Your task to perform on an android device: turn on the 12-hour format for clock Image 0: 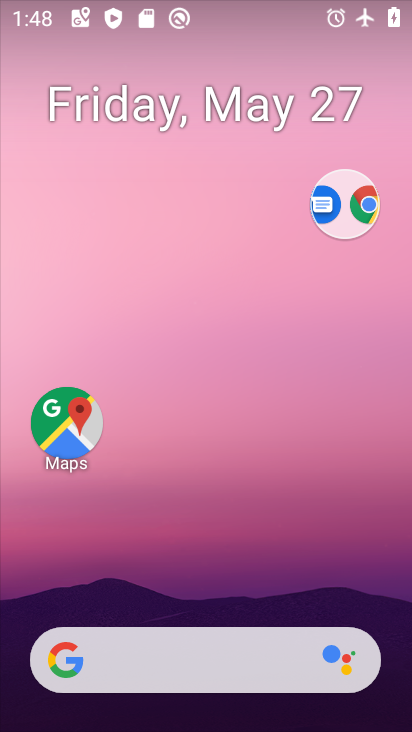
Step 0: drag from (198, 670) to (206, 245)
Your task to perform on an android device: turn on the 12-hour format for clock Image 1: 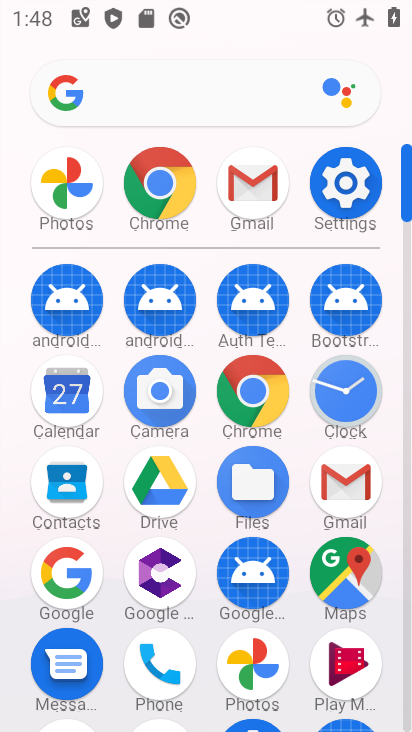
Step 1: click (364, 398)
Your task to perform on an android device: turn on the 12-hour format for clock Image 2: 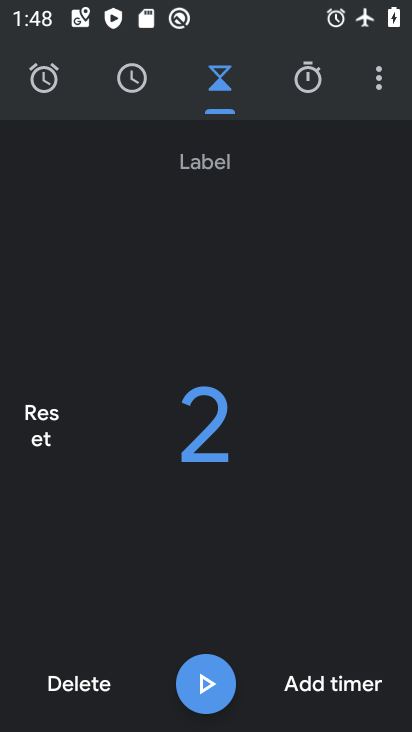
Step 2: click (385, 86)
Your task to perform on an android device: turn on the 12-hour format for clock Image 3: 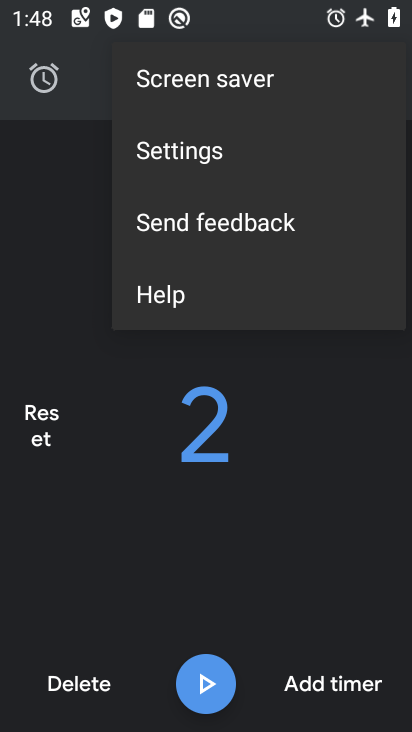
Step 3: click (231, 152)
Your task to perform on an android device: turn on the 12-hour format for clock Image 4: 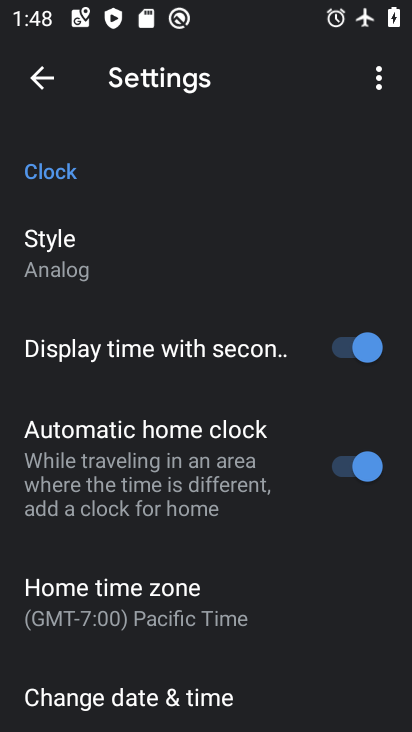
Step 4: drag from (173, 543) to (229, 328)
Your task to perform on an android device: turn on the 12-hour format for clock Image 5: 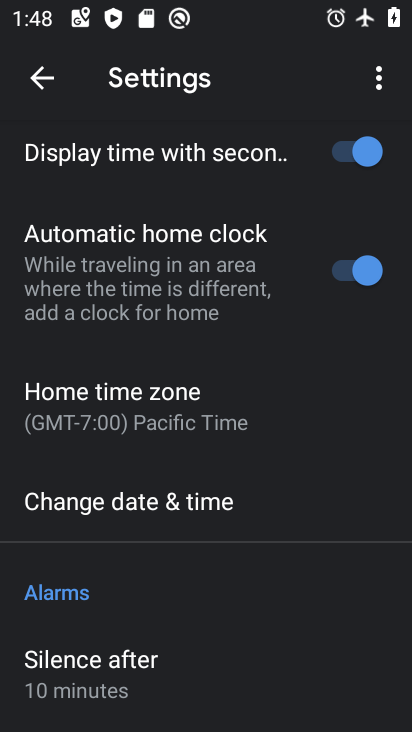
Step 5: click (203, 503)
Your task to perform on an android device: turn on the 12-hour format for clock Image 6: 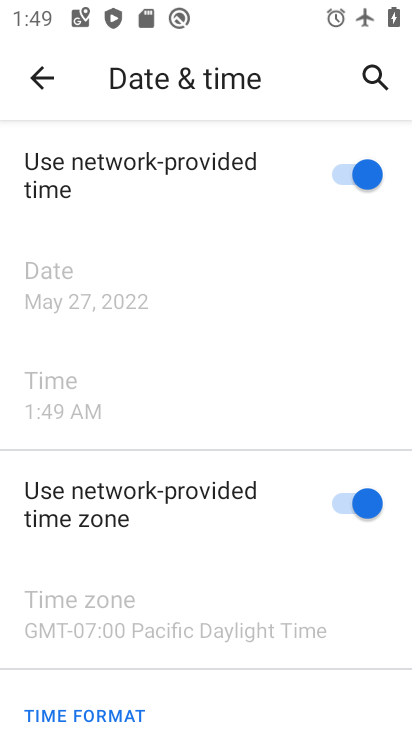
Step 6: task complete